Your task to perform on an android device: See recent photos Image 0: 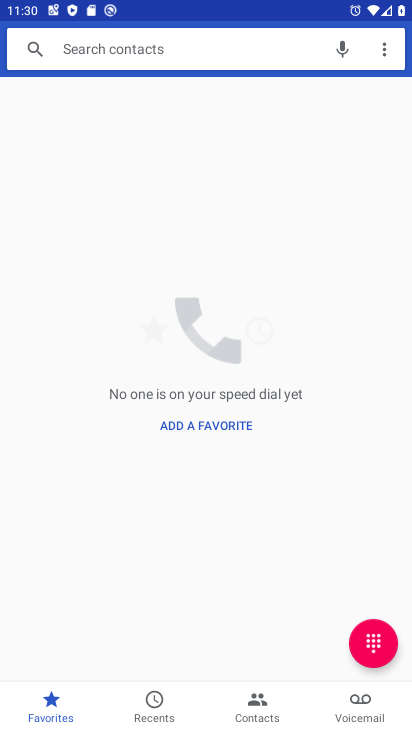
Step 0: press home button
Your task to perform on an android device: See recent photos Image 1: 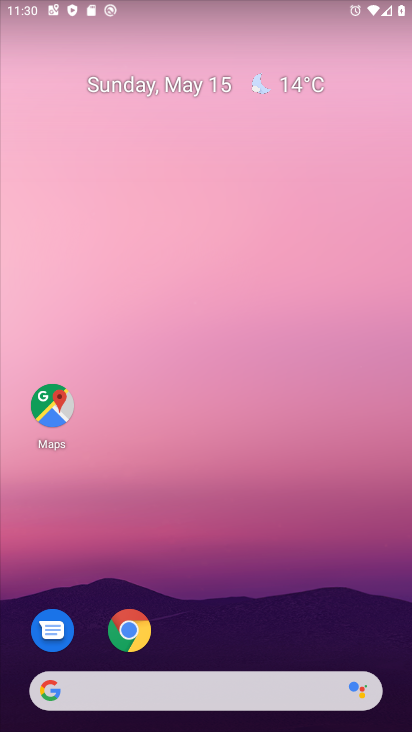
Step 1: drag from (212, 723) to (219, 148)
Your task to perform on an android device: See recent photos Image 2: 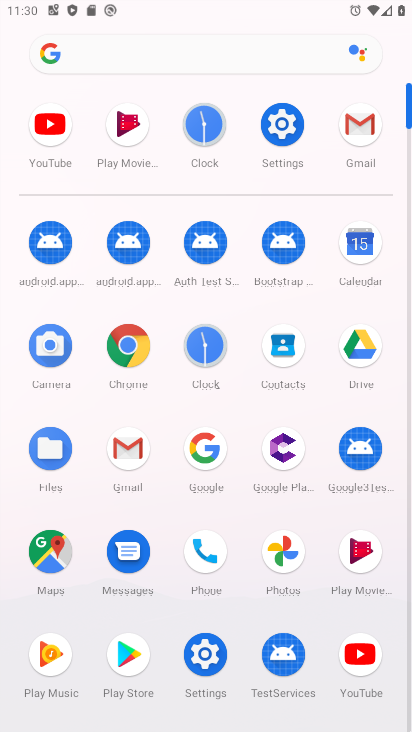
Step 2: click (284, 548)
Your task to perform on an android device: See recent photos Image 3: 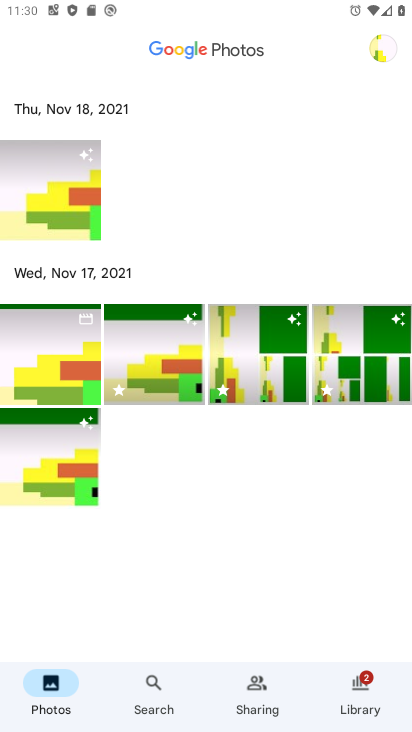
Step 3: click (47, 196)
Your task to perform on an android device: See recent photos Image 4: 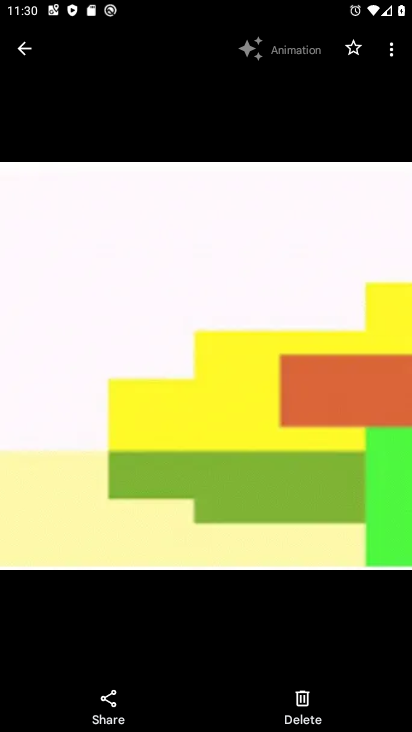
Step 4: task complete